Your task to perform on an android device: toggle show notifications on the lock screen Image 0: 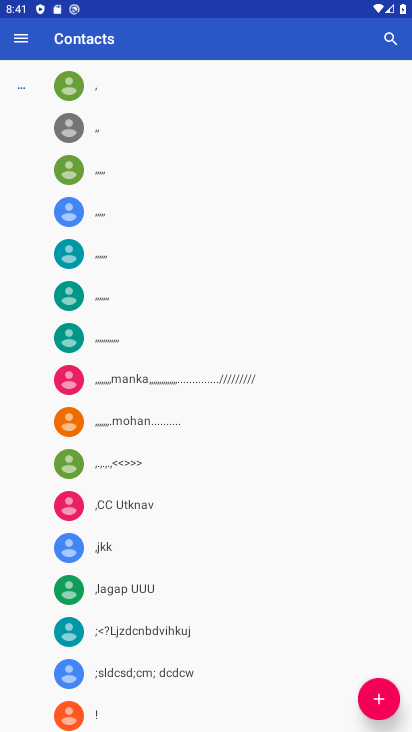
Step 0: press home button
Your task to perform on an android device: toggle show notifications on the lock screen Image 1: 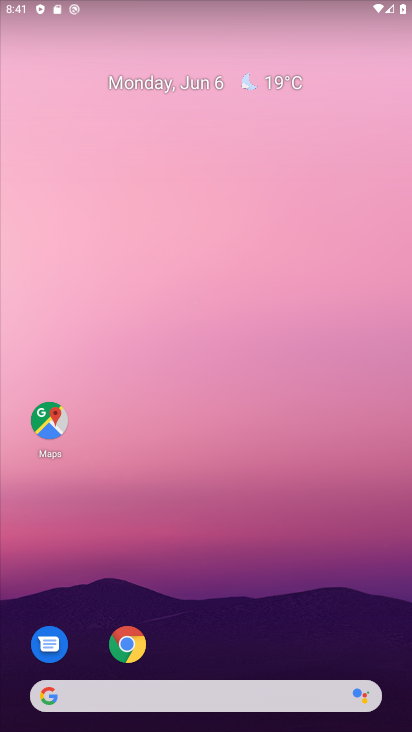
Step 1: drag from (191, 618) to (193, 16)
Your task to perform on an android device: toggle show notifications on the lock screen Image 2: 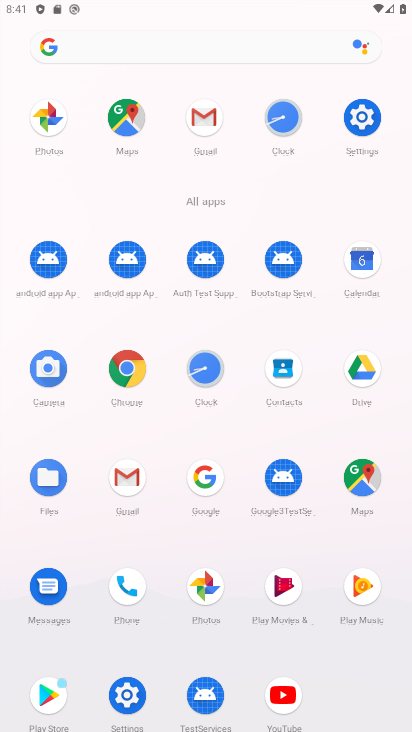
Step 2: click (356, 115)
Your task to perform on an android device: toggle show notifications on the lock screen Image 3: 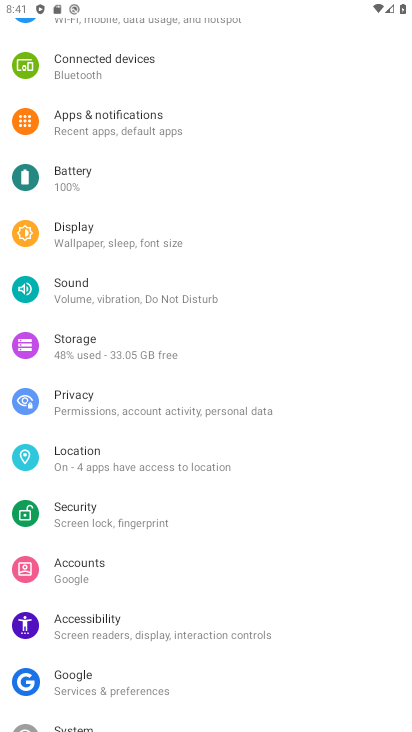
Step 3: drag from (114, 141) to (126, 690)
Your task to perform on an android device: toggle show notifications on the lock screen Image 4: 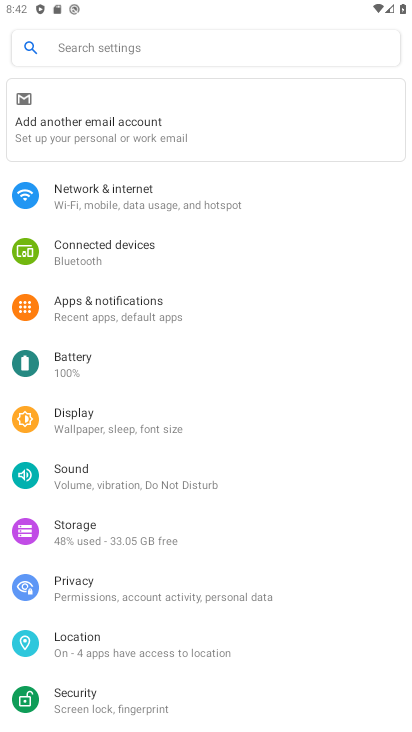
Step 4: click (136, 323)
Your task to perform on an android device: toggle show notifications on the lock screen Image 5: 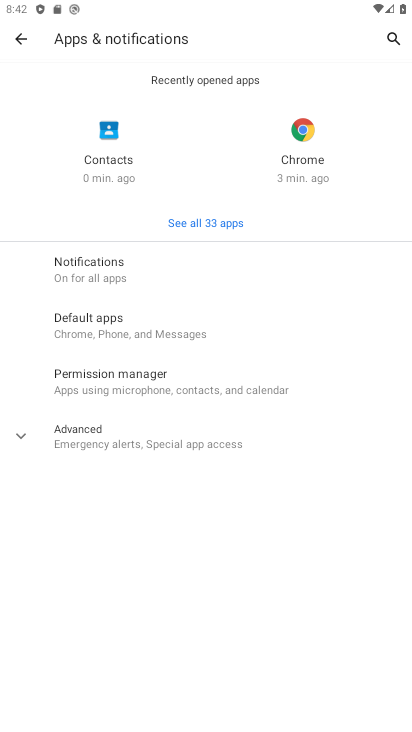
Step 5: click (112, 259)
Your task to perform on an android device: toggle show notifications on the lock screen Image 6: 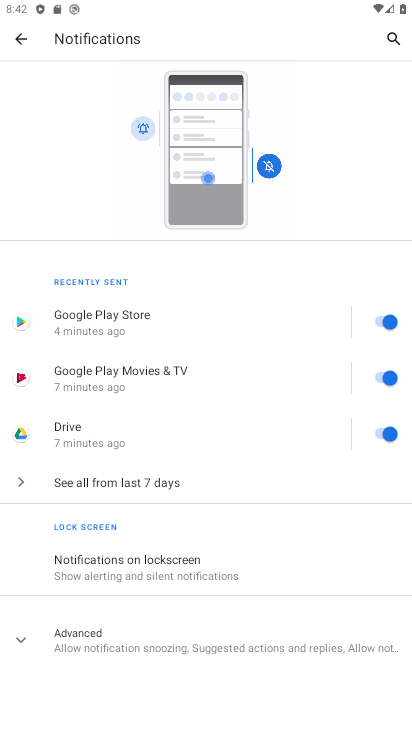
Step 6: click (165, 558)
Your task to perform on an android device: toggle show notifications on the lock screen Image 7: 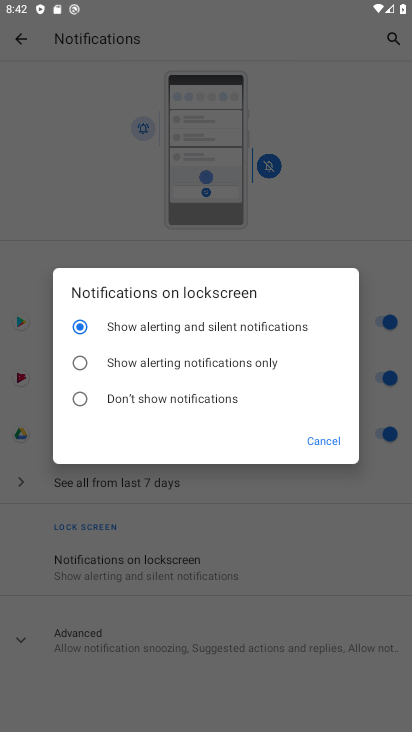
Step 7: click (163, 374)
Your task to perform on an android device: toggle show notifications on the lock screen Image 8: 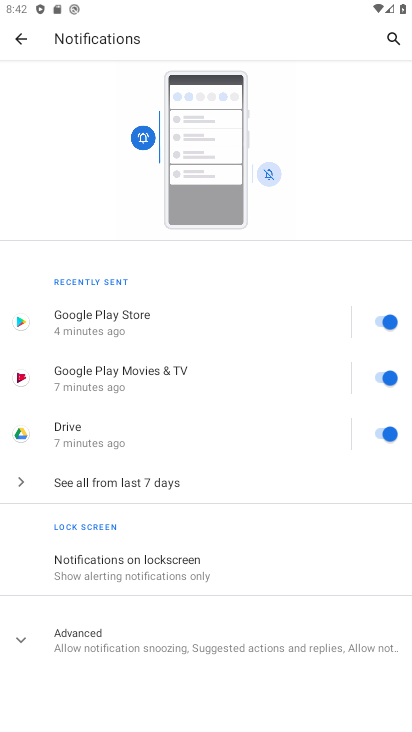
Step 8: task complete